Your task to perform on an android device: Go to notification settings Image 0: 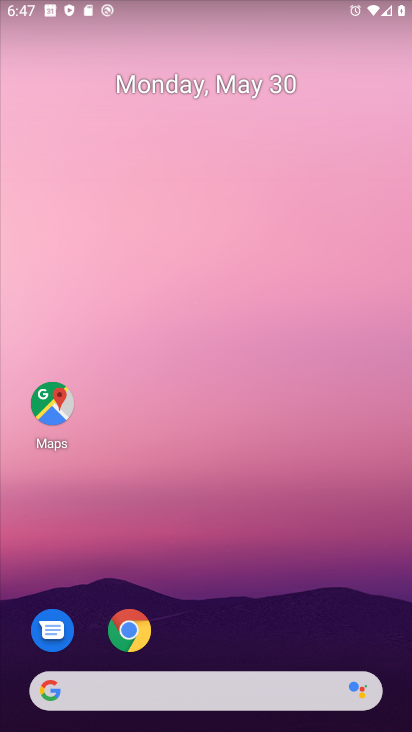
Step 0: drag from (324, 606) to (202, 40)
Your task to perform on an android device: Go to notification settings Image 1: 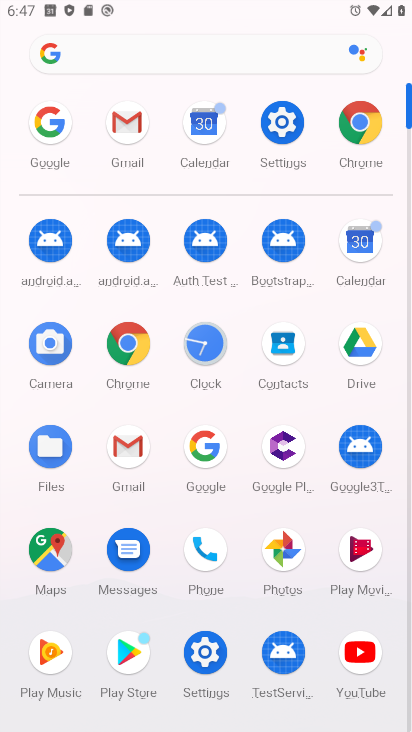
Step 1: click (291, 116)
Your task to perform on an android device: Go to notification settings Image 2: 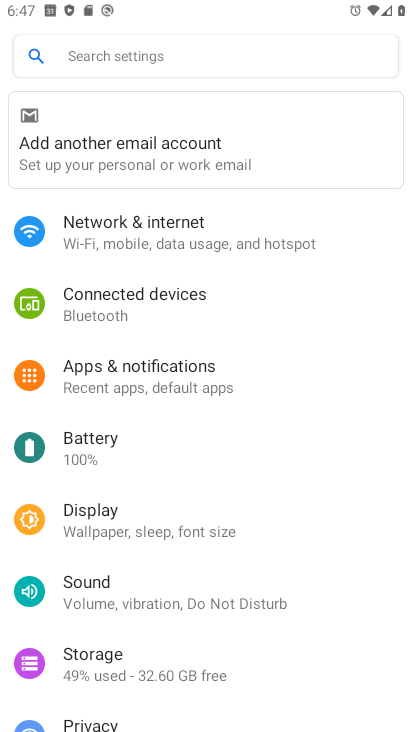
Step 2: click (175, 389)
Your task to perform on an android device: Go to notification settings Image 3: 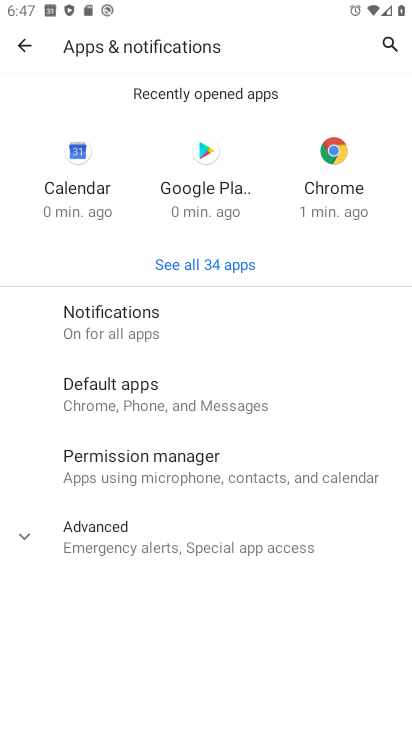
Step 3: click (161, 311)
Your task to perform on an android device: Go to notification settings Image 4: 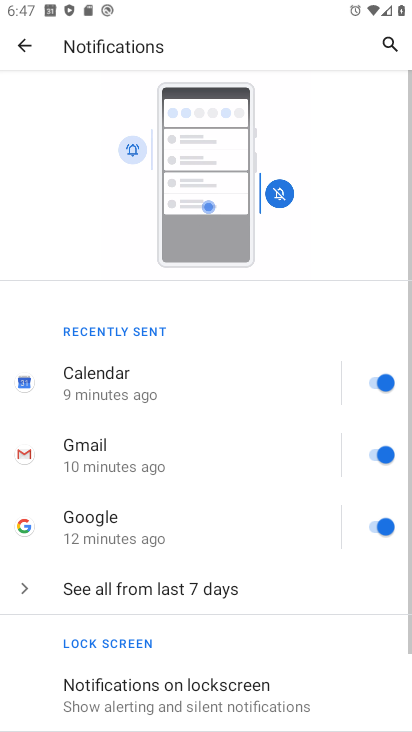
Step 4: task complete